Your task to perform on an android device: snooze an email in the gmail app Image 0: 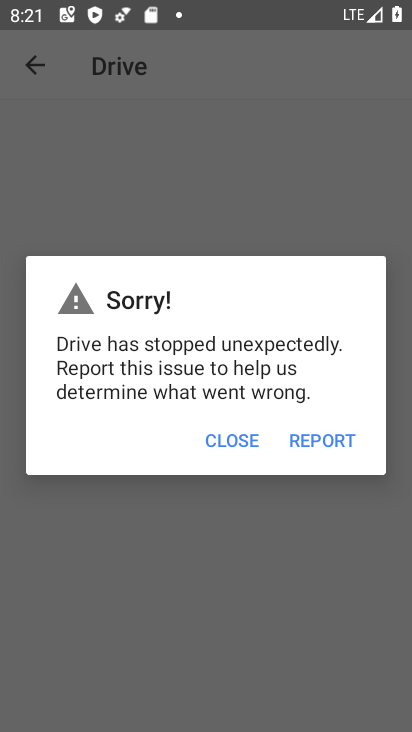
Step 0: press home button
Your task to perform on an android device: snooze an email in the gmail app Image 1: 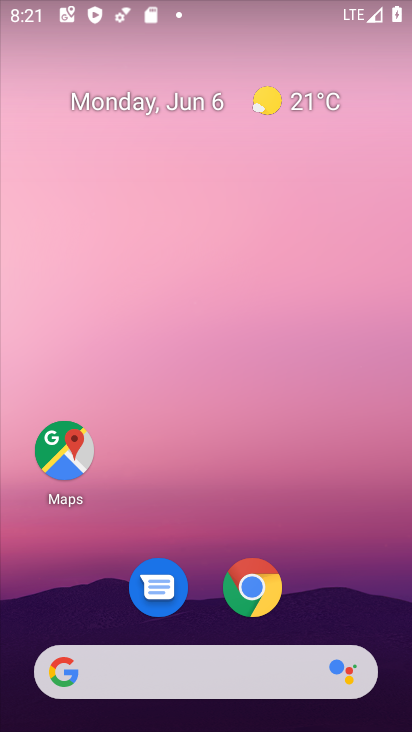
Step 1: drag from (227, 690) to (303, 12)
Your task to perform on an android device: snooze an email in the gmail app Image 2: 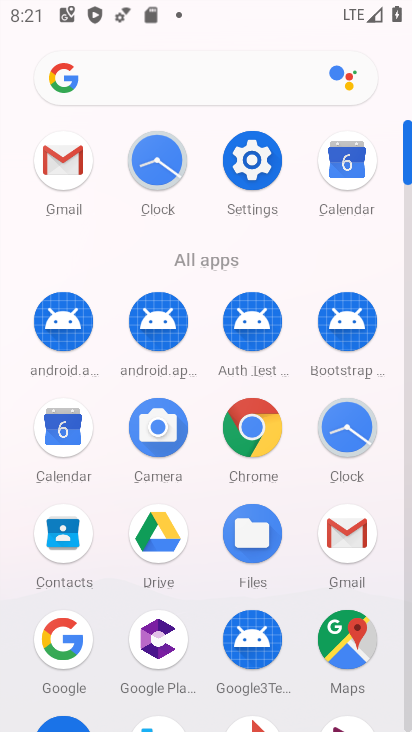
Step 2: click (97, 180)
Your task to perform on an android device: snooze an email in the gmail app Image 3: 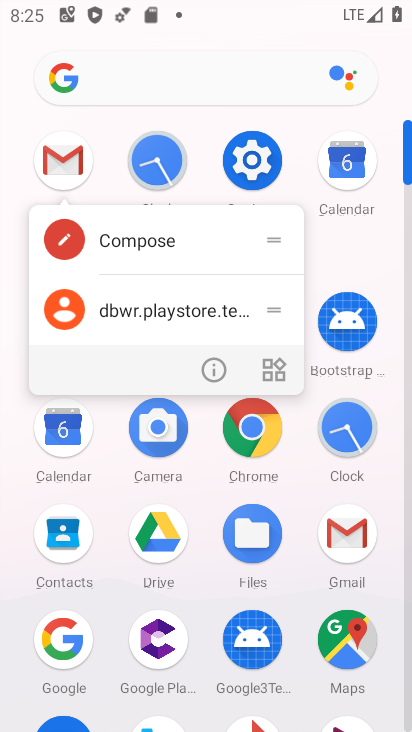
Step 3: click (55, 158)
Your task to perform on an android device: snooze an email in the gmail app Image 4: 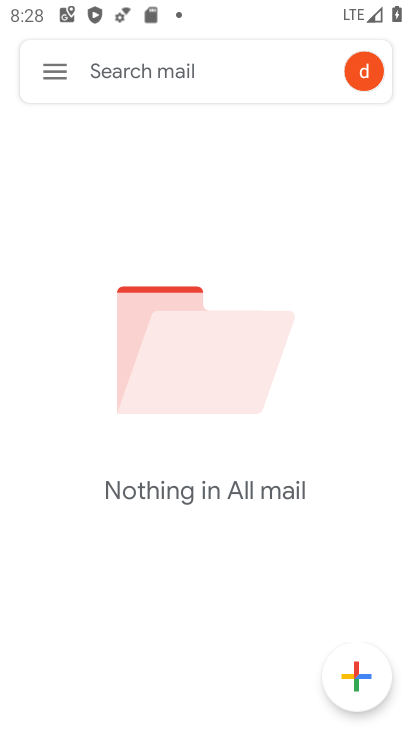
Step 4: click (44, 65)
Your task to perform on an android device: snooze an email in the gmail app Image 5: 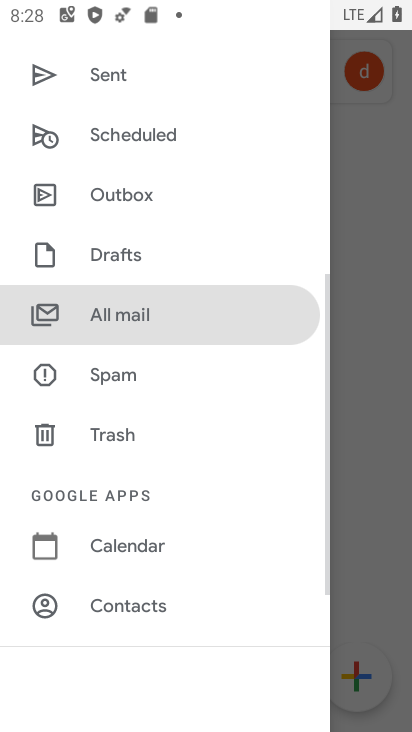
Step 5: click (184, 310)
Your task to perform on an android device: snooze an email in the gmail app Image 6: 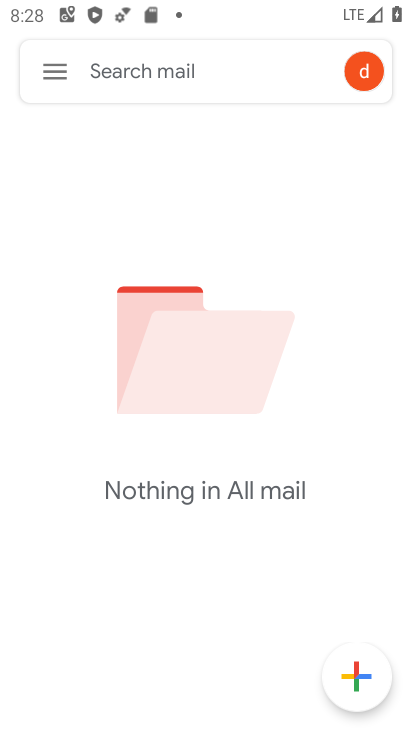
Step 6: task complete